Your task to perform on an android device: What are the new products by Samsung? Image 0: 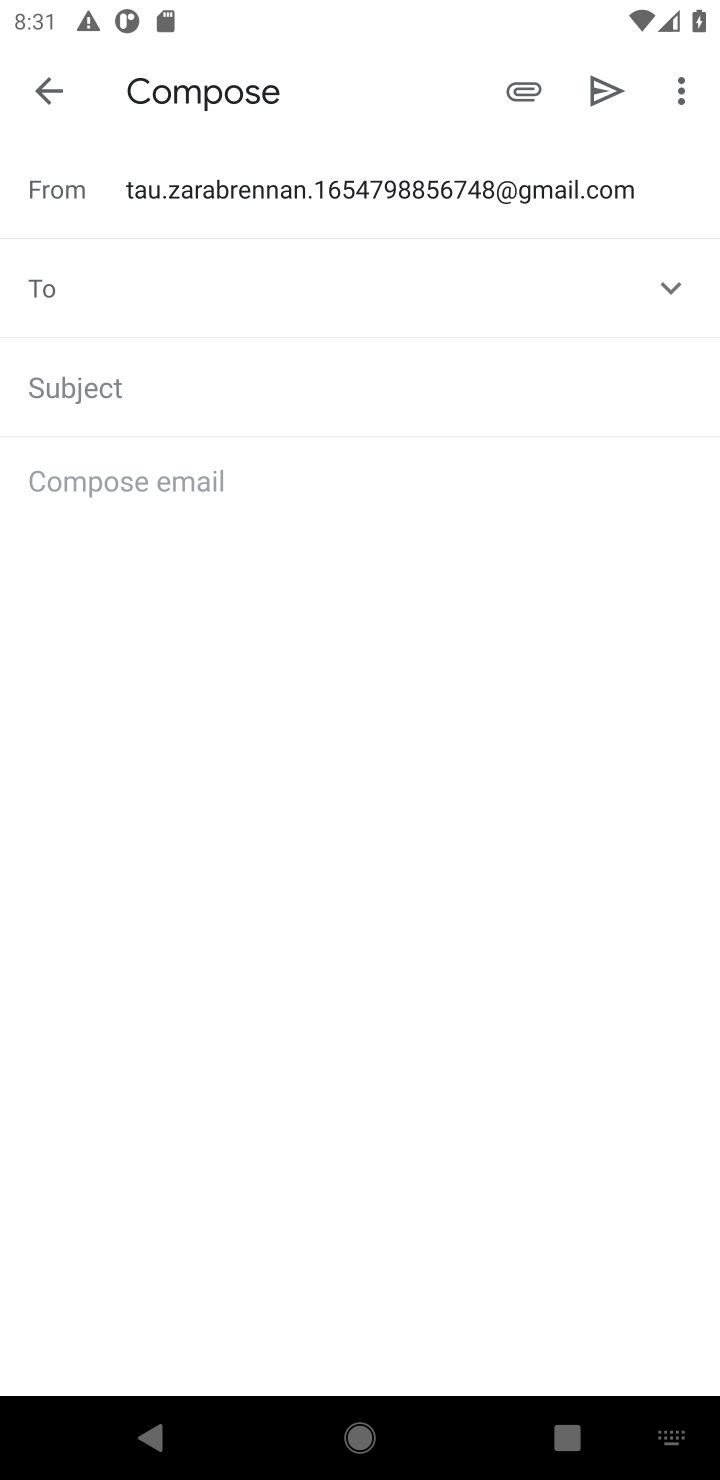
Step 0: press home button
Your task to perform on an android device: What are the new products by Samsung? Image 1: 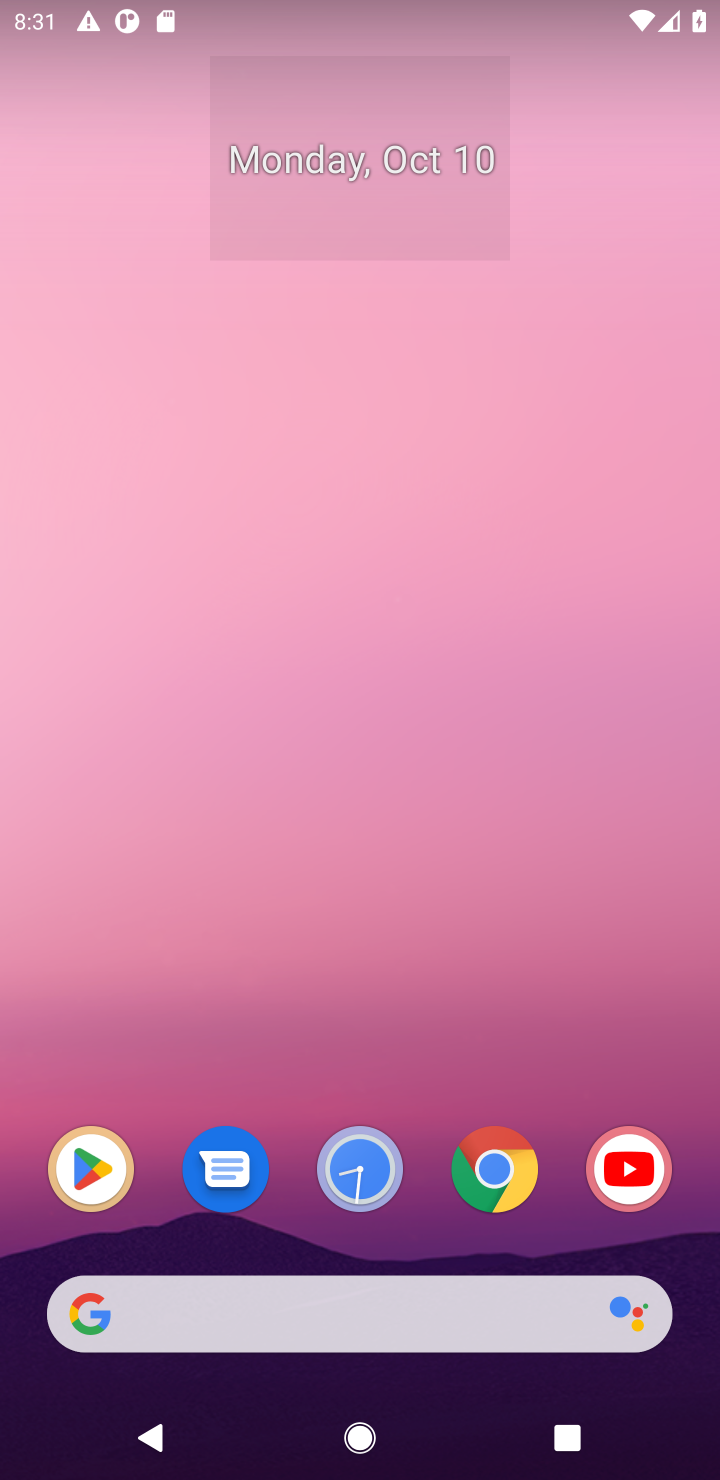
Step 1: click (518, 1179)
Your task to perform on an android device: What are the new products by Samsung? Image 2: 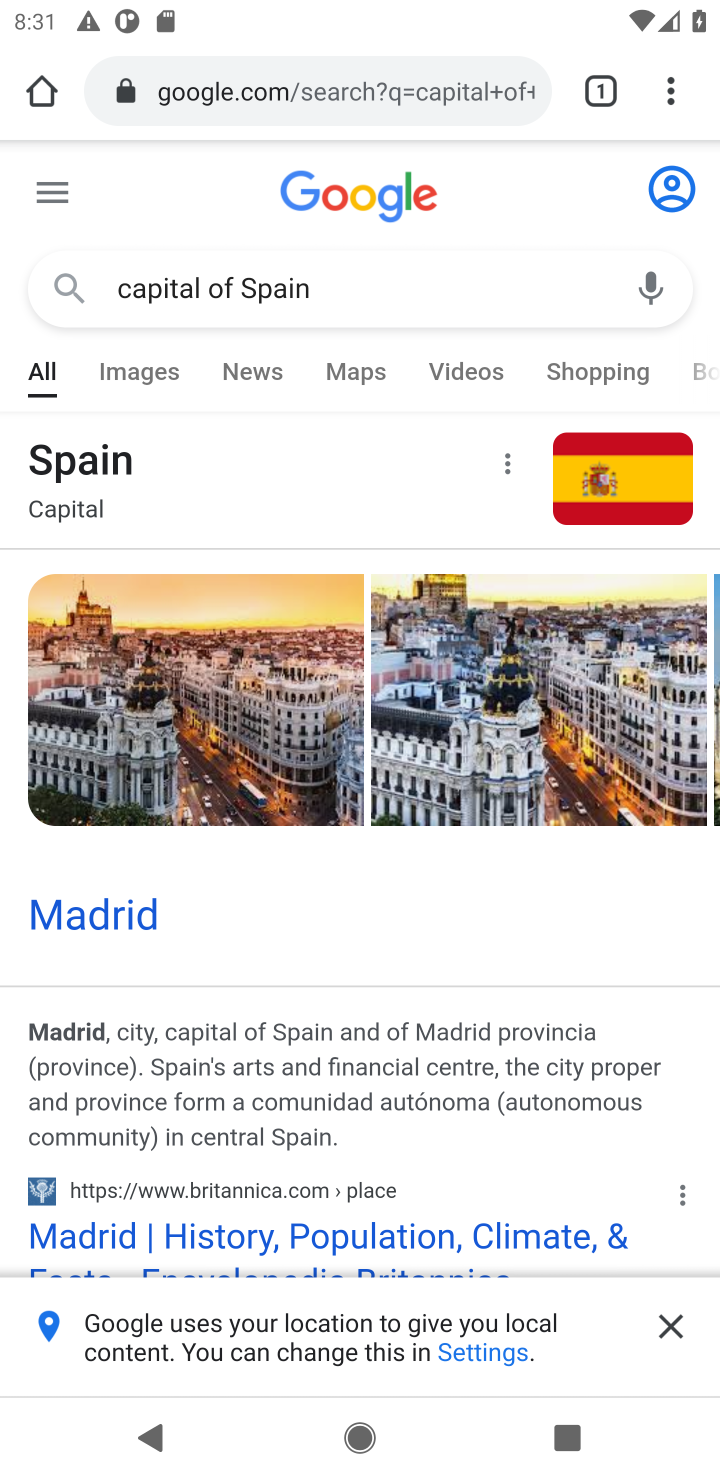
Step 2: click (343, 105)
Your task to perform on an android device: What are the new products by Samsung? Image 3: 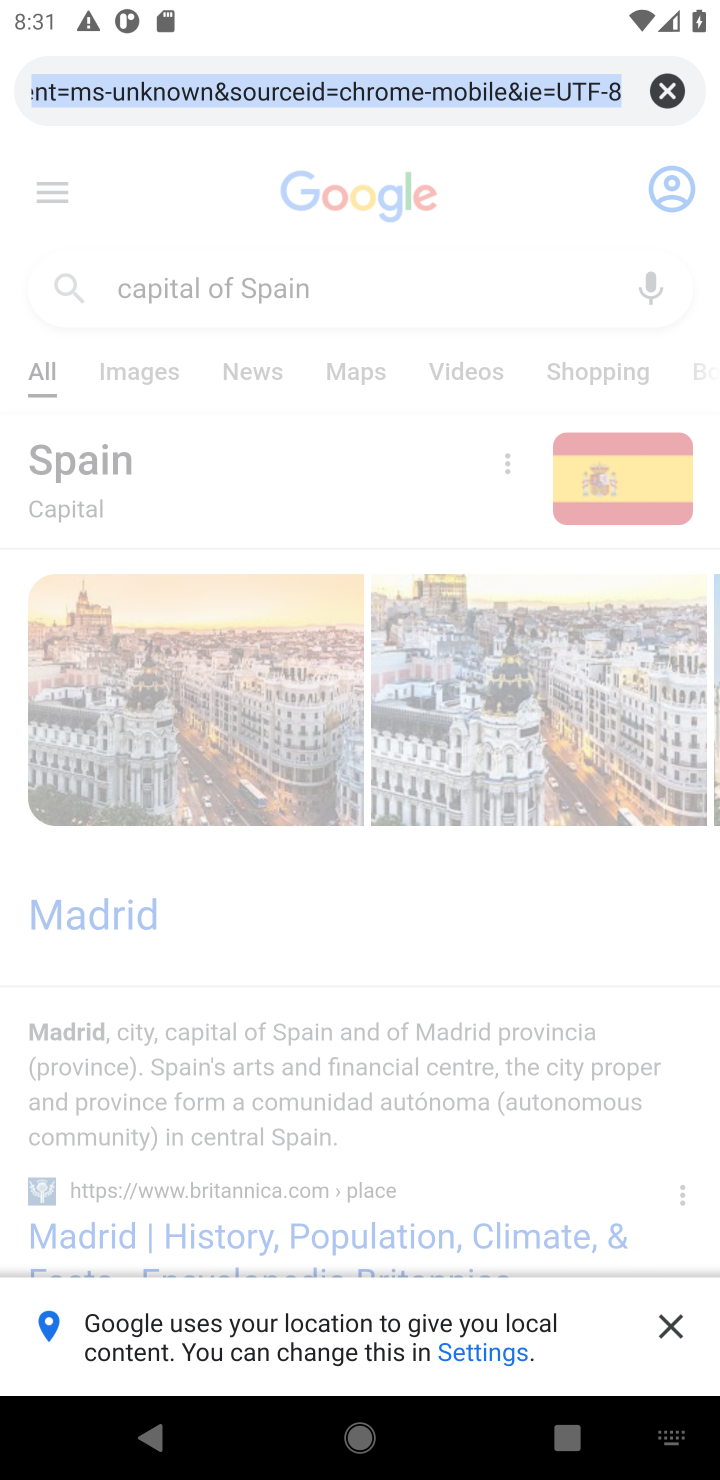
Step 3: type "new products by Samsung"
Your task to perform on an android device: What are the new products by Samsung? Image 4: 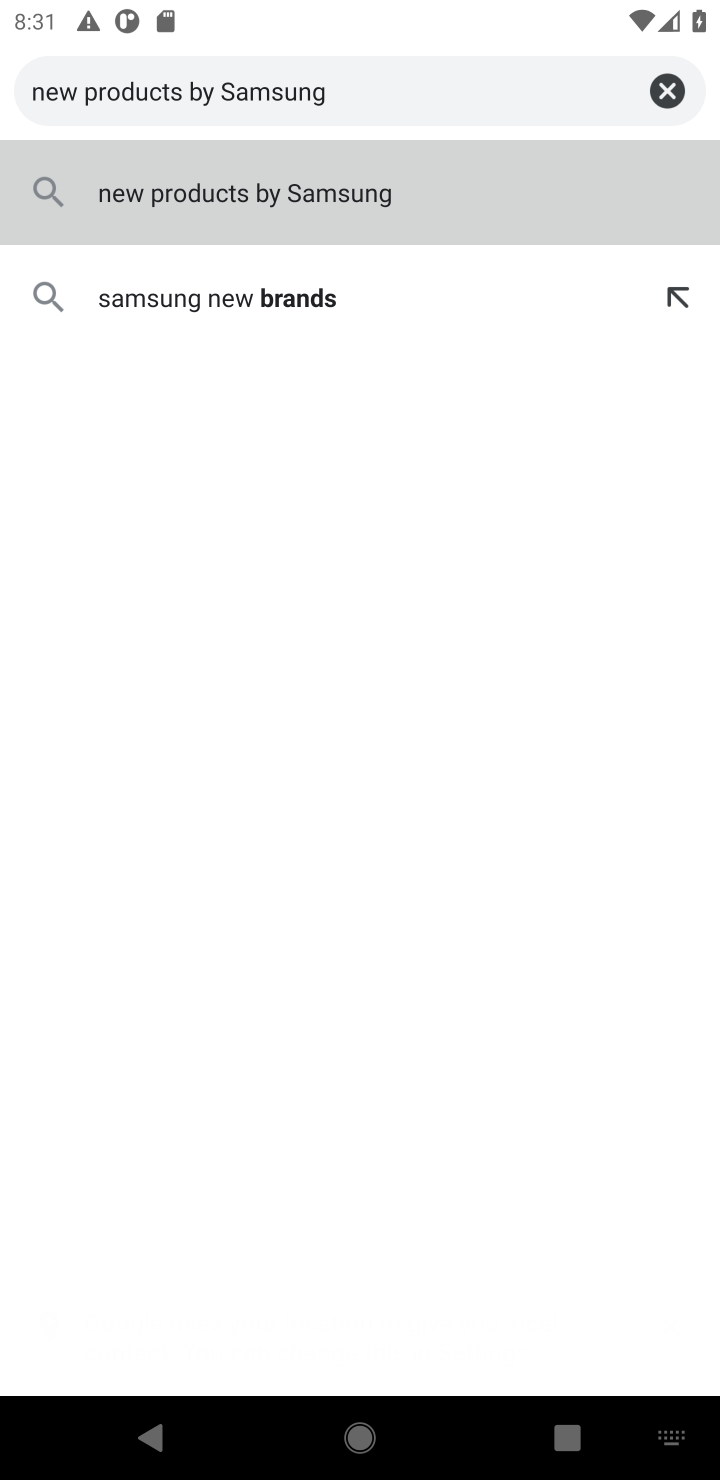
Step 4: press enter
Your task to perform on an android device: What are the new products by Samsung? Image 5: 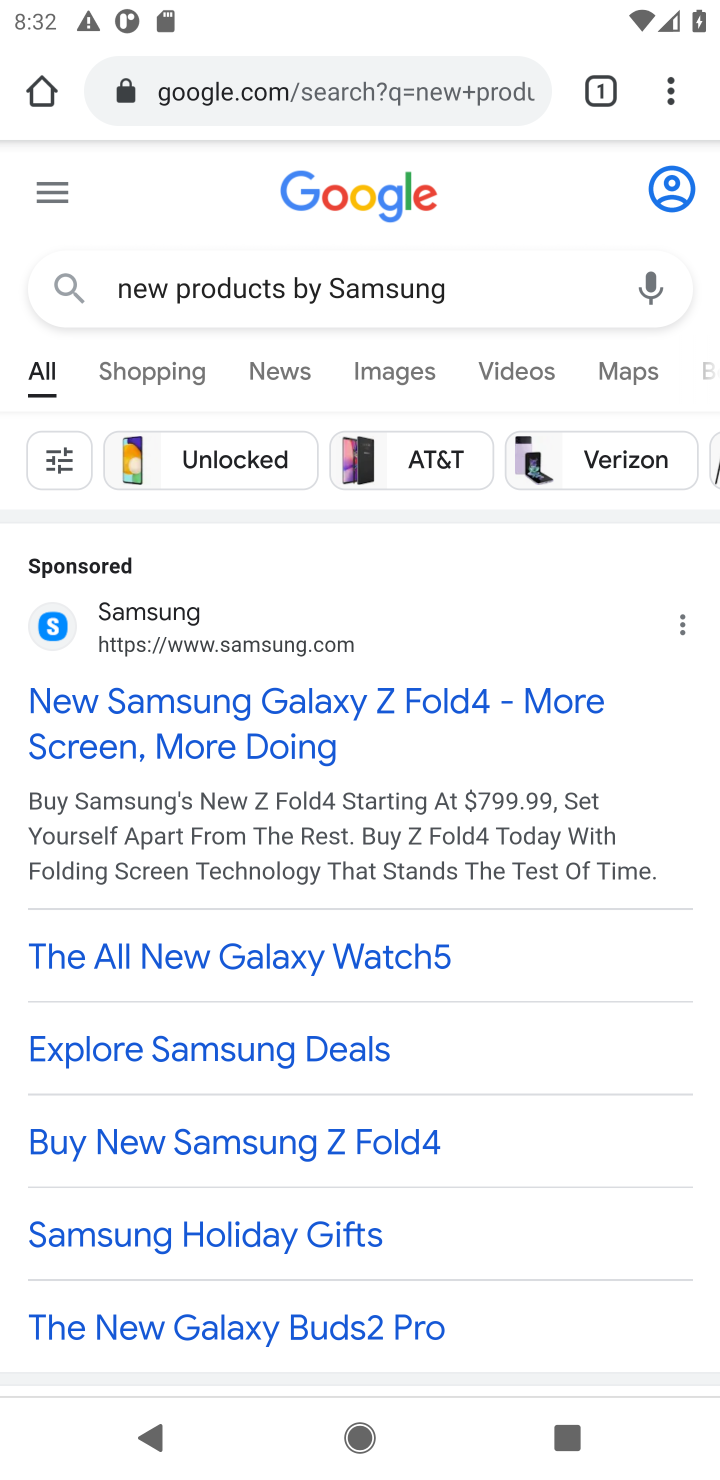
Step 5: drag from (160, 871) to (112, 673)
Your task to perform on an android device: What are the new products by Samsung? Image 6: 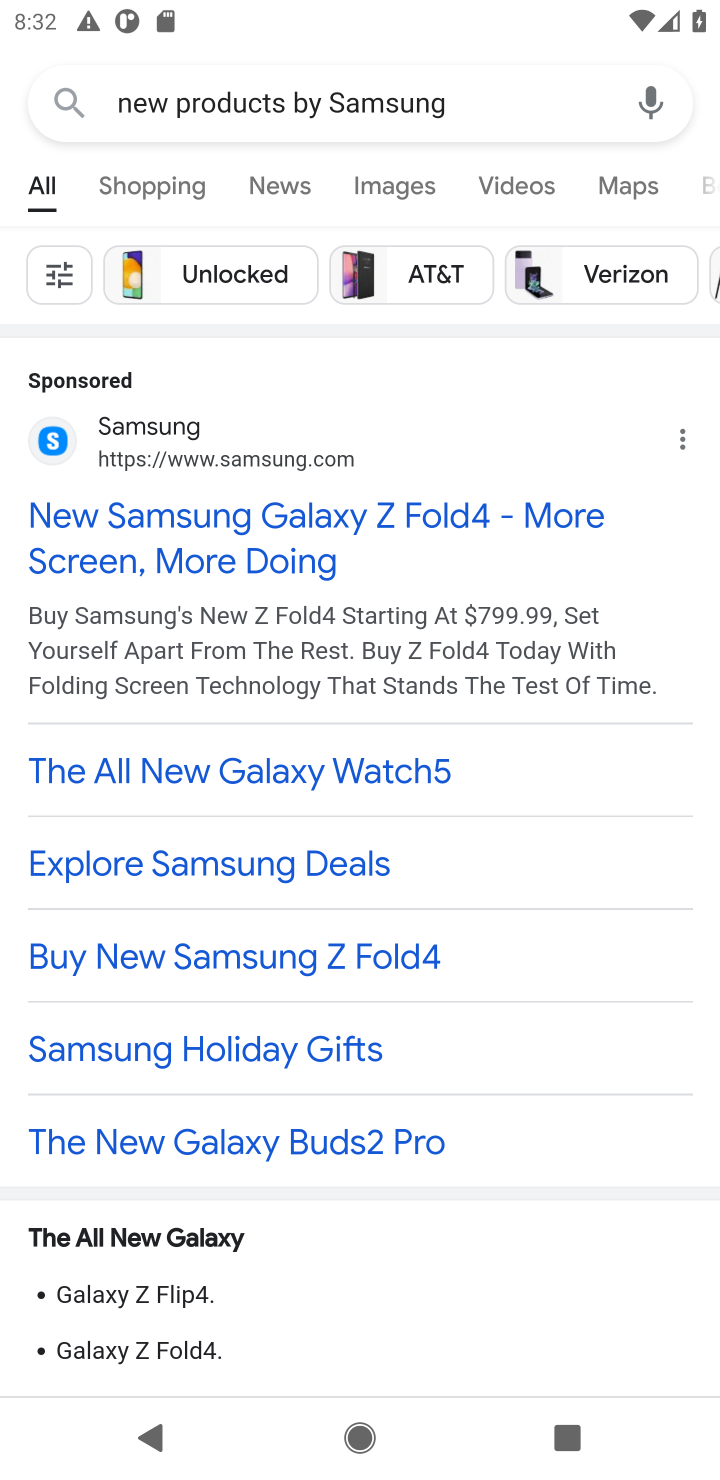
Step 6: drag from (422, 1234) to (313, 875)
Your task to perform on an android device: What are the new products by Samsung? Image 7: 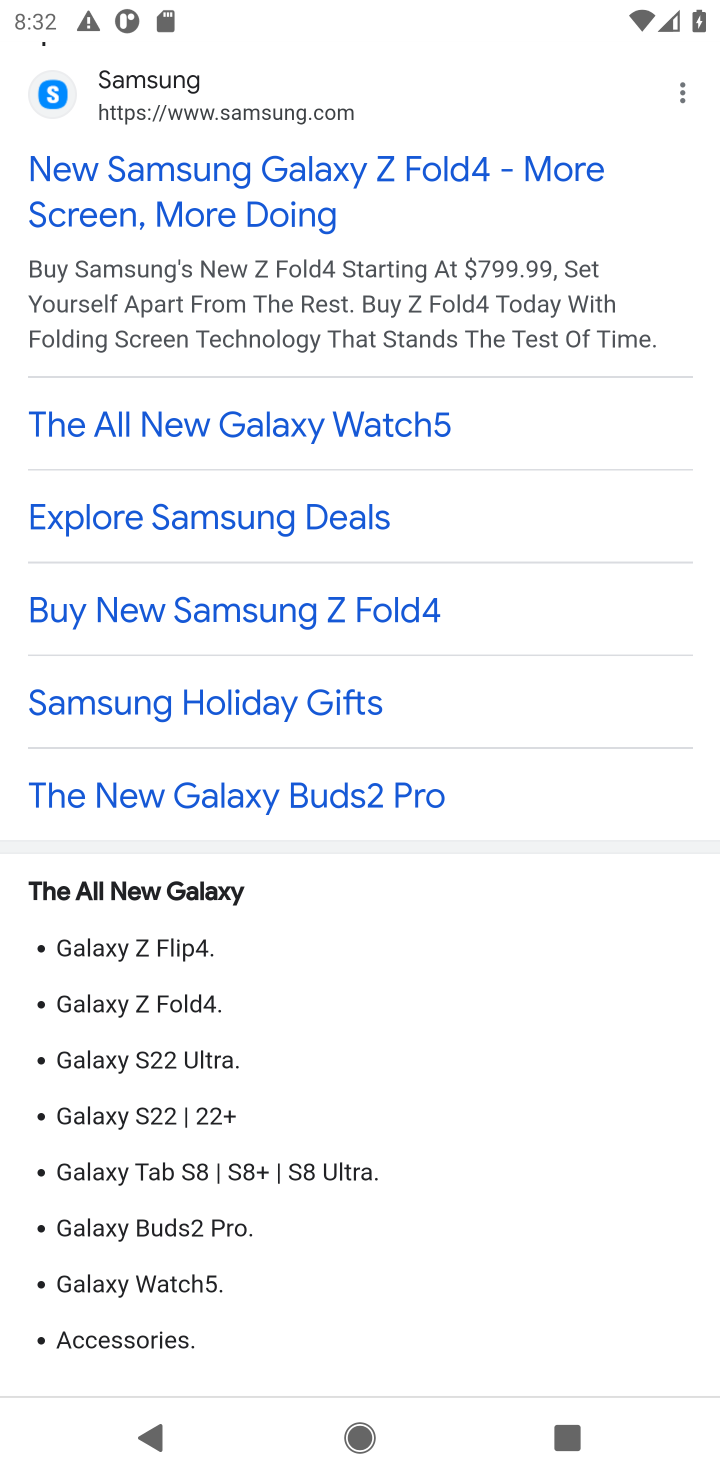
Step 7: drag from (262, 1146) to (174, 821)
Your task to perform on an android device: What are the new products by Samsung? Image 8: 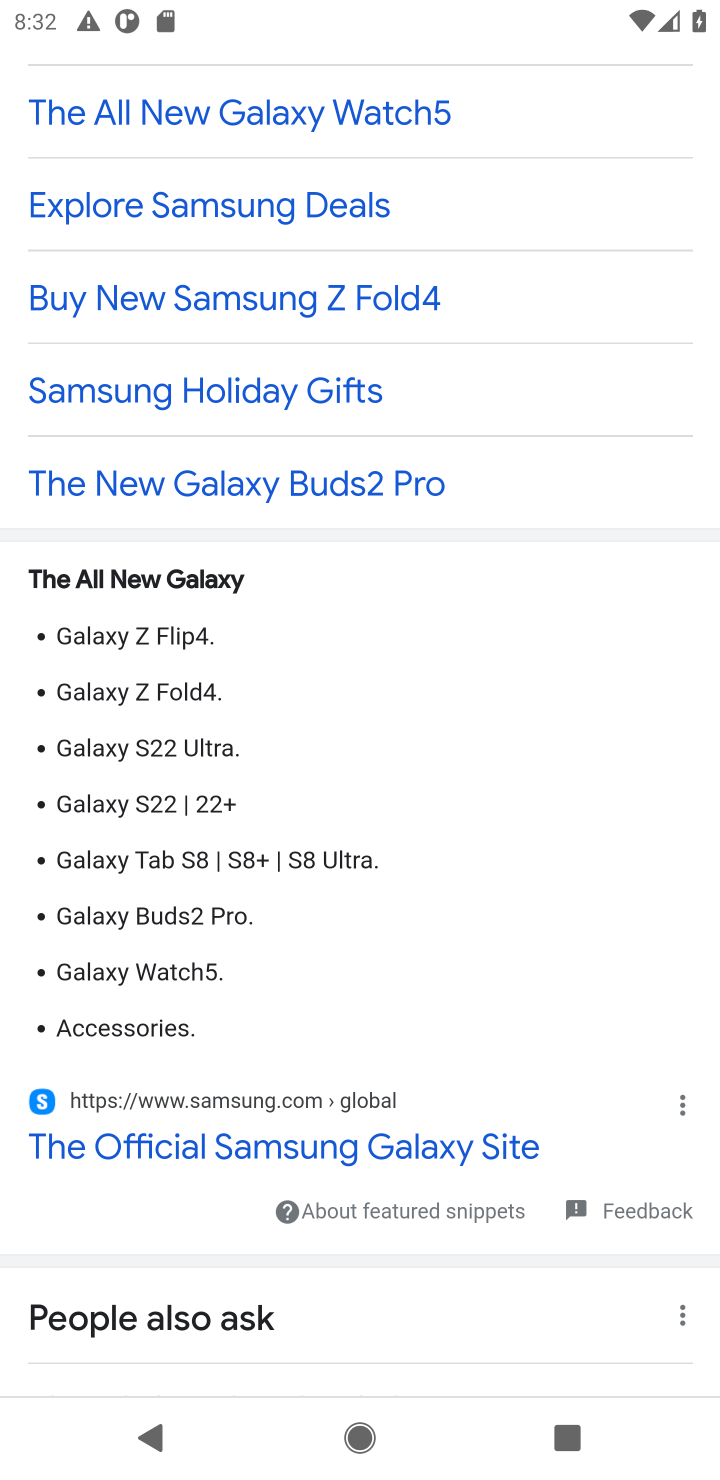
Step 8: click (222, 1139)
Your task to perform on an android device: What are the new products by Samsung? Image 9: 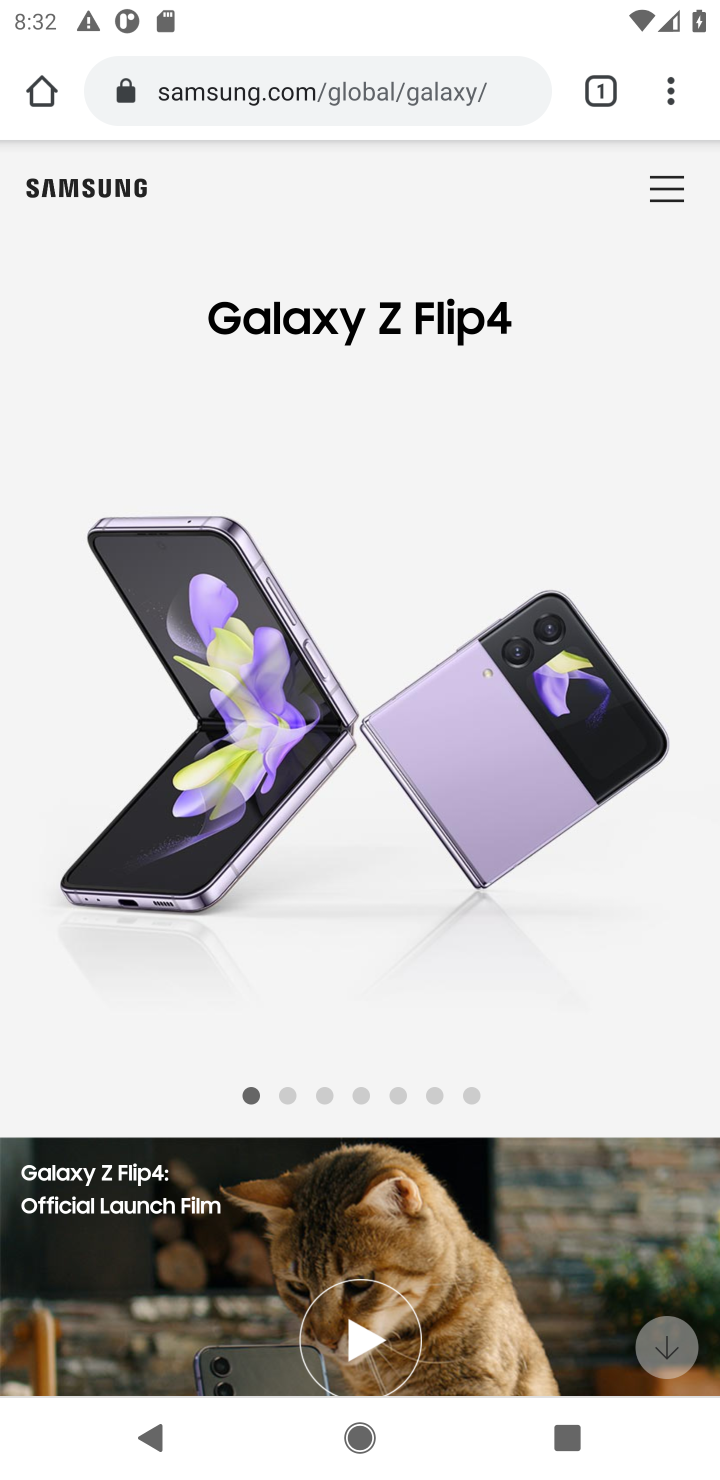
Step 9: task complete